Your task to perform on an android device: delete location history Image 0: 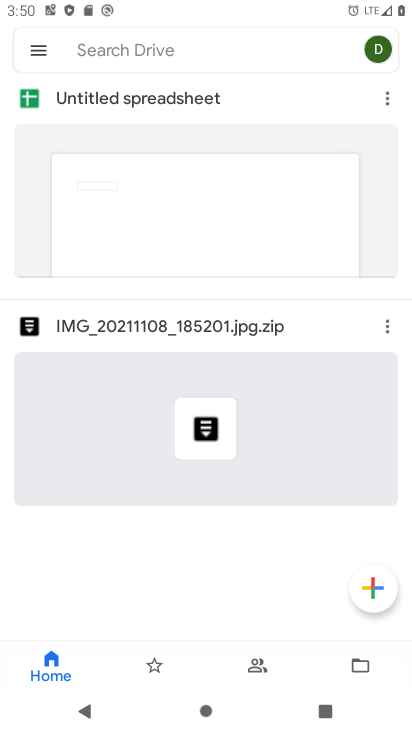
Step 0: press home button
Your task to perform on an android device: delete location history Image 1: 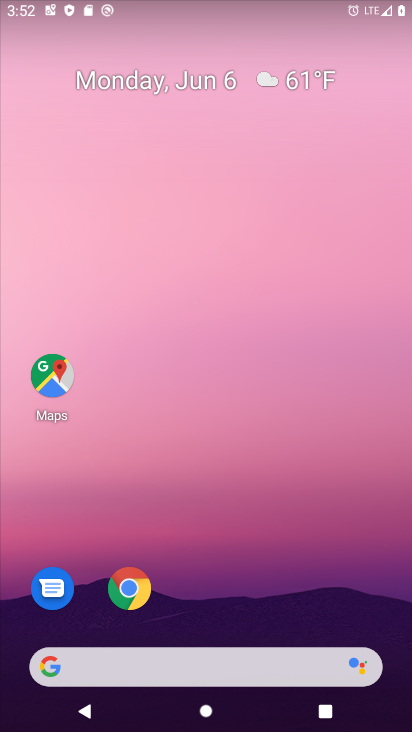
Step 1: click (59, 381)
Your task to perform on an android device: delete location history Image 2: 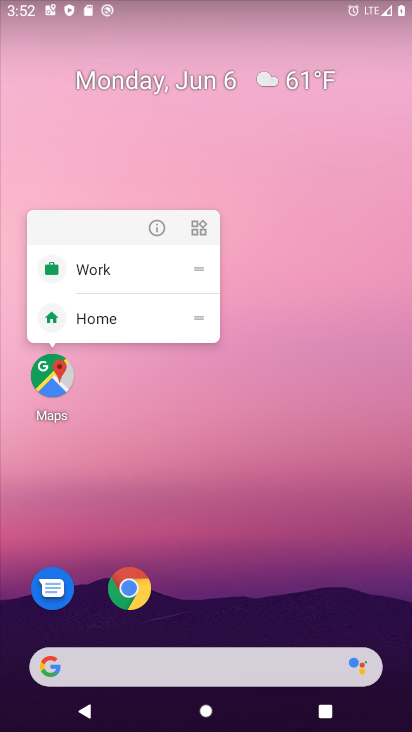
Step 2: click (59, 379)
Your task to perform on an android device: delete location history Image 3: 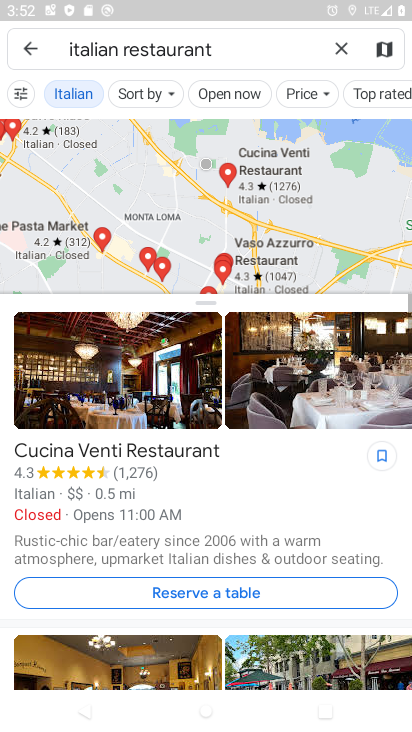
Step 3: click (24, 57)
Your task to perform on an android device: delete location history Image 4: 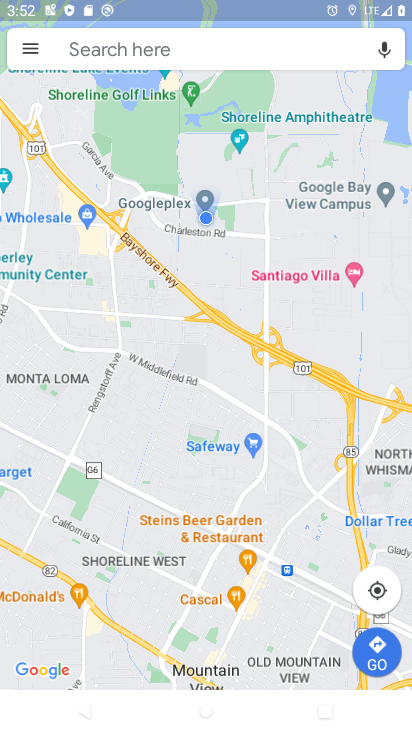
Step 4: click (24, 57)
Your task to perform on an android device: delete location history Image 5: 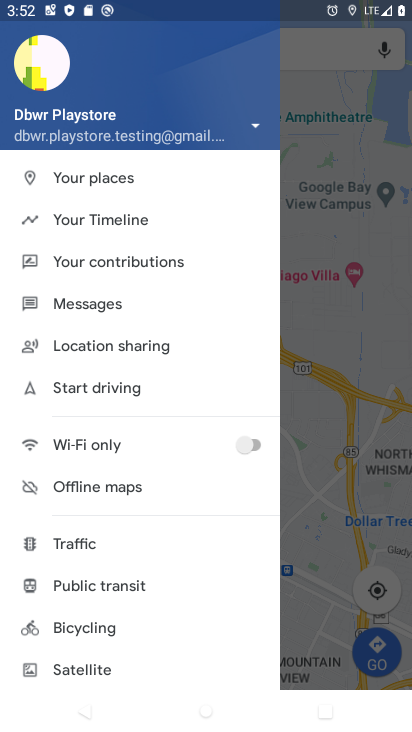
Step 5: drag from (153, 655) to (191, 638)
Your task to perform on an android device: delete location history Image 6: 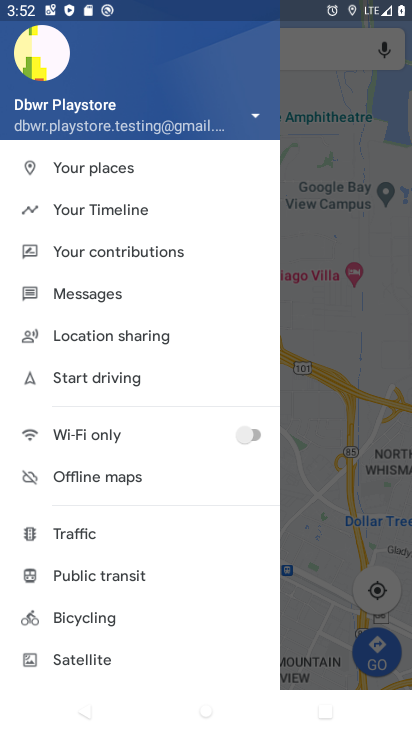
Step 6: click (117, 218)
Your task to perform on an android device: delete location history Image 7: 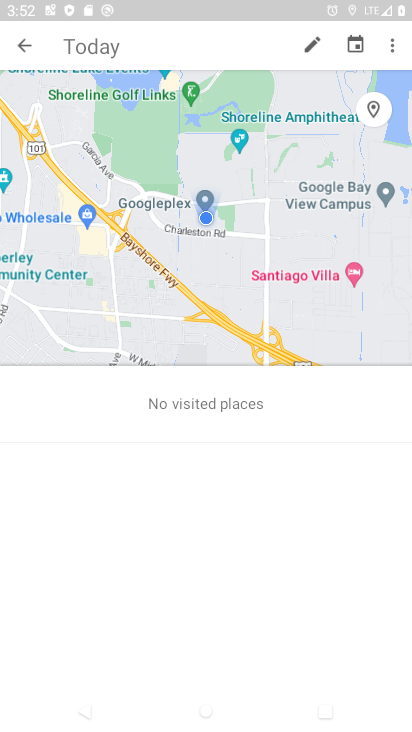
Step 7: click (395, 38)
Your task to perform on an android device: delete location history Image 8: 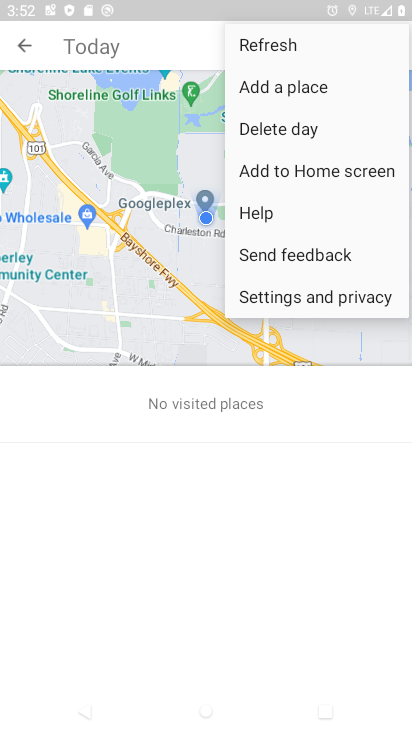
Step 8: click (351, 301)
Your task to perform on an android device: delete location history Image 9: 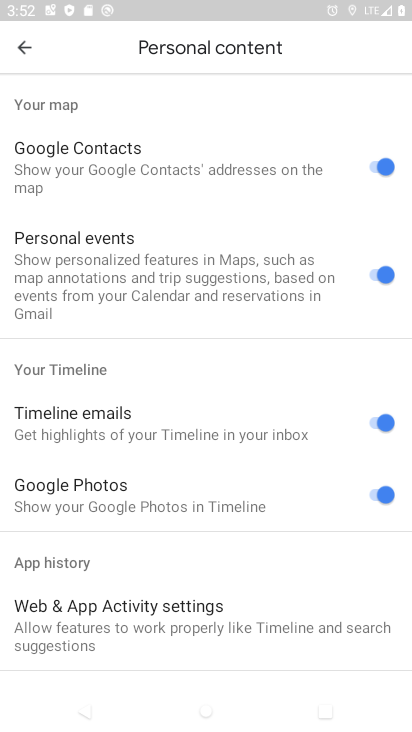
Step 9: drag from (220, 642) to (156, 71)
Your task to perform on an android device: delete location history Image 10: 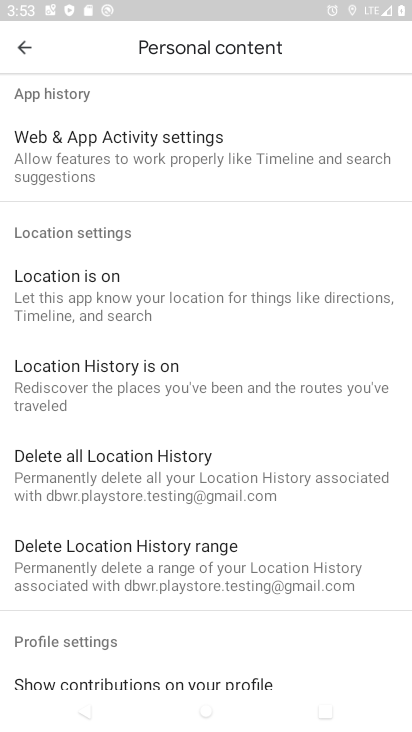
Step 10: click (211, 480)
Your task to perform on an android device: delete location history Image 11: 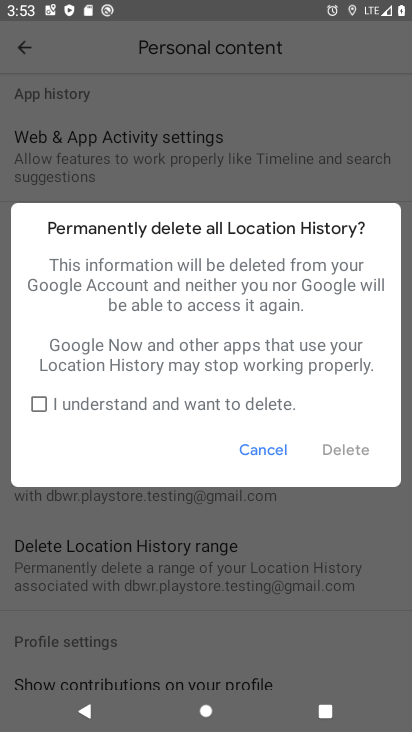
Step 11: click (189, 406)
Your task to perform on an android device: delete location history Image 12: 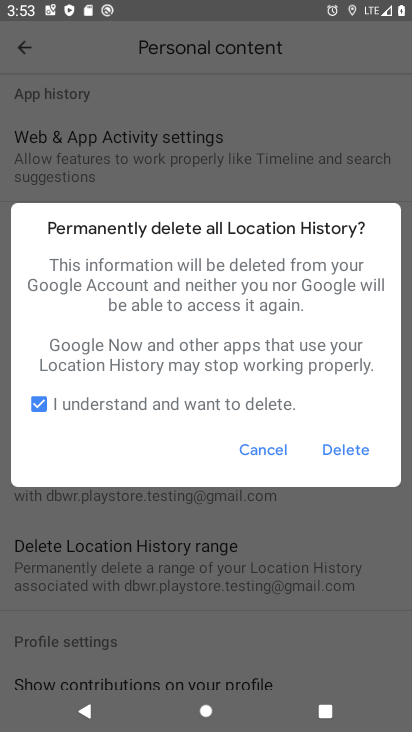
Step 12: click (355, 459)
Your task to perform on an android device: delete location history Image 13: 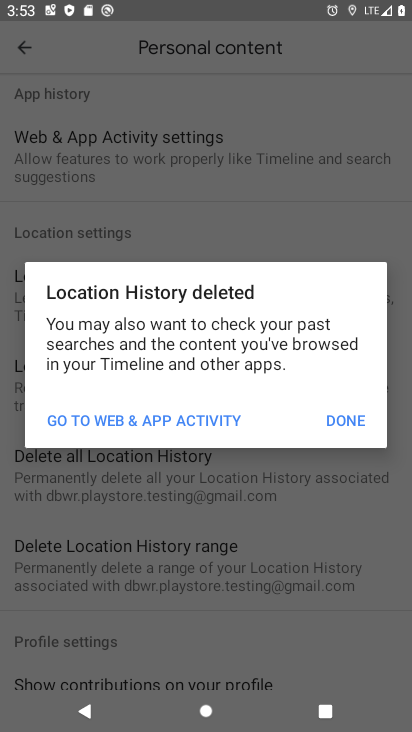
Step 13: click (351, 434)
Your task to perform on an android device: delete location history Image 14: 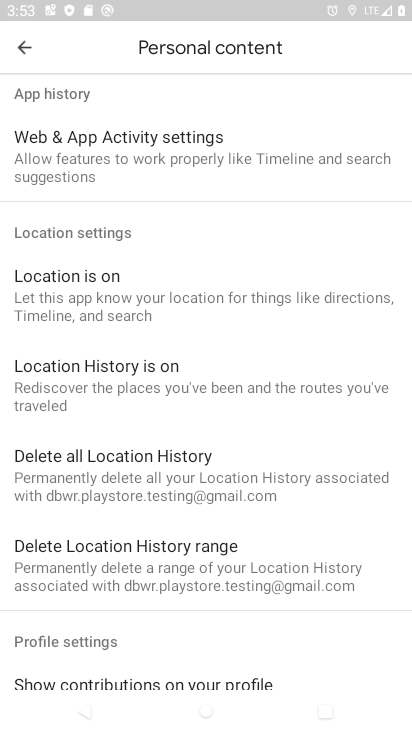
Step 14: task complete